Your task to perform on an android device: Check the weather Image 0: 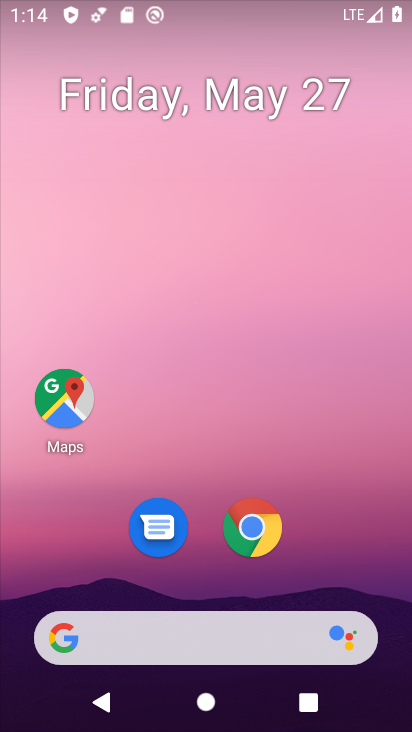
Step 0: click (301, 634)
Your task to perform on an android device: Check the weather Image 1: 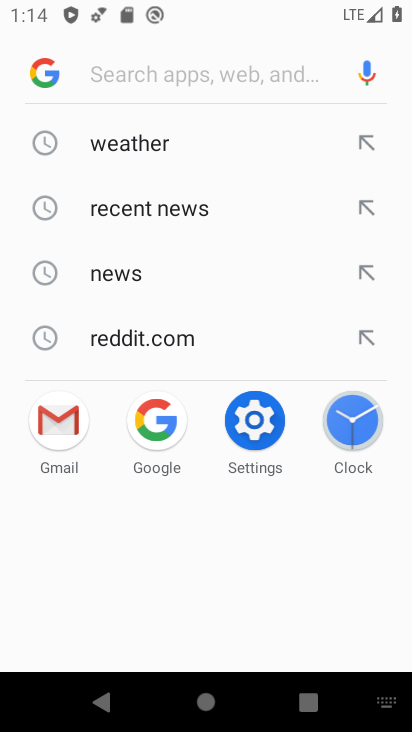
Step 1: click (161, 131)
Your task to perform on an android device: Check the weather Image 2: 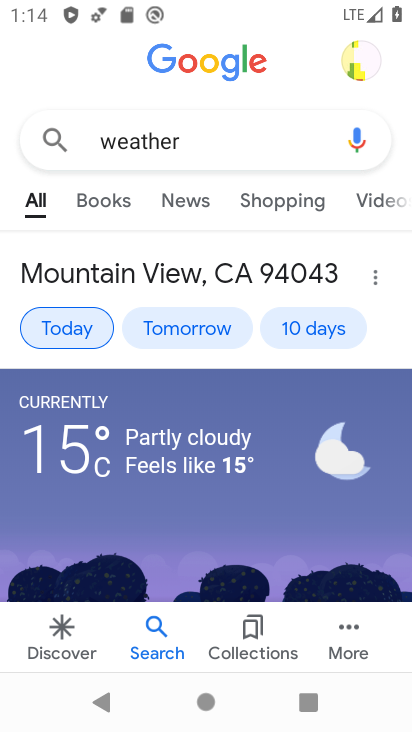
Step 2: task complete